Your task to perform on an android device: Do I have any events this weekend? Image 0: 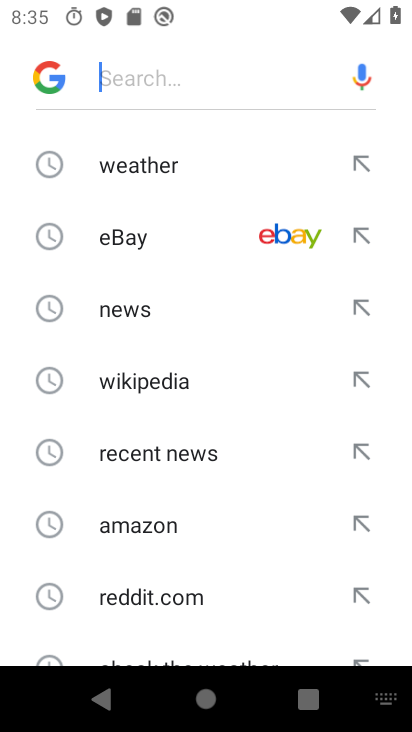
Step 0: press home button
Your task to perform on an android device: Do I have any events this weekend? Image 1: 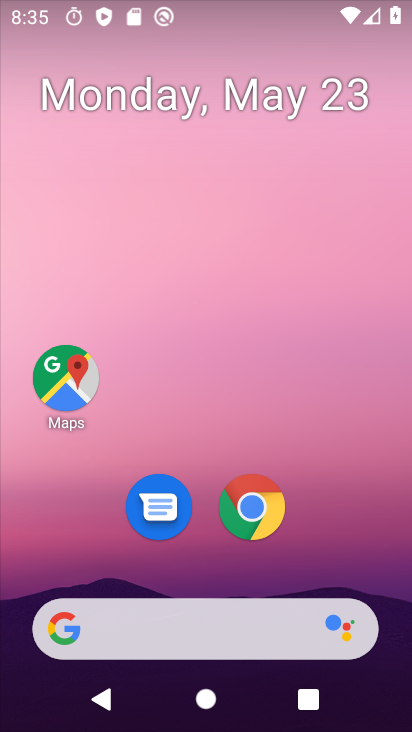
Step 1: drag from (310, 362) to (283, 1)
Your task to perform on an android device: Do I have any events this weekend? Image 2: 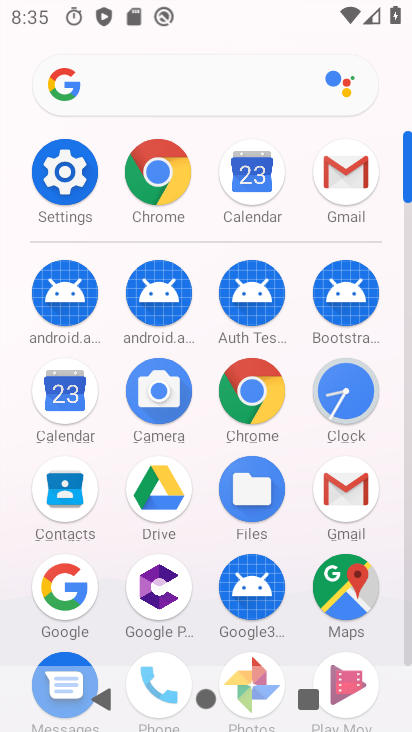
Step 2: click (265, 183)
Your task to perform on an android device: Do I have any events this weekend? Image 3: 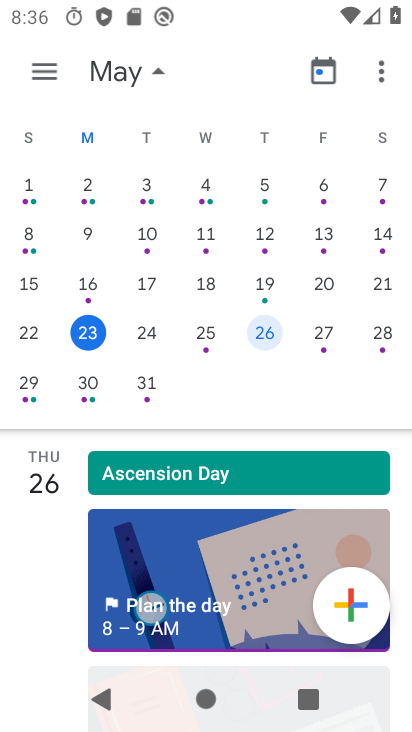
Step 3: click (211, 338)
Your task to perform on an android device: Do I have any events this weekend? Image 4: 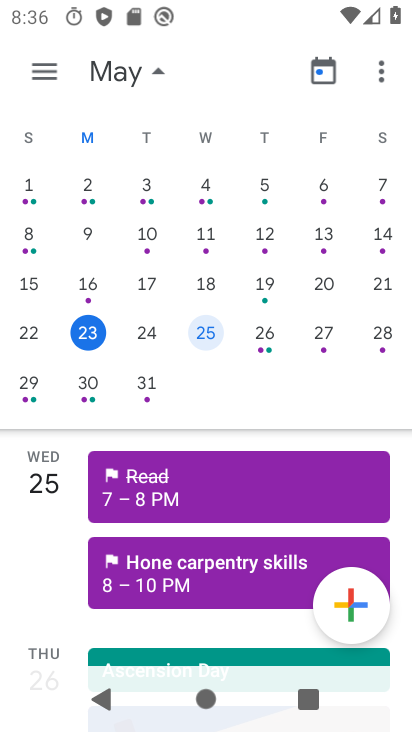
Step 4: task complete